Your task to perform on an android device: Check the news Image 0: 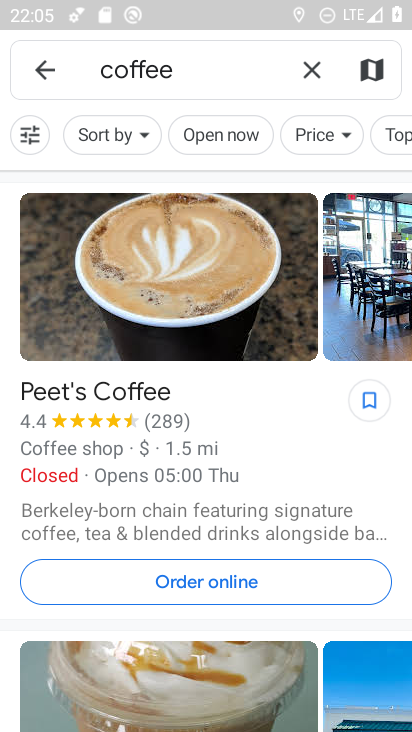
Step 0: press home button
Your task to perform on an android device: Check the news Image 1: 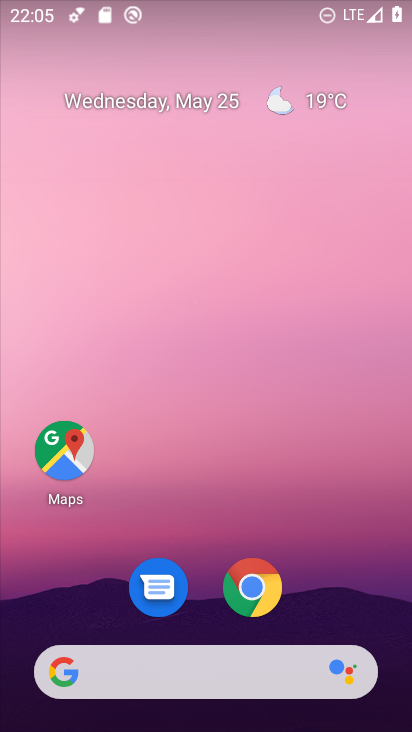
Step 1: task complete